Your task to perform on an android device: uninstall "Duolingo: language lessons" Image 0: 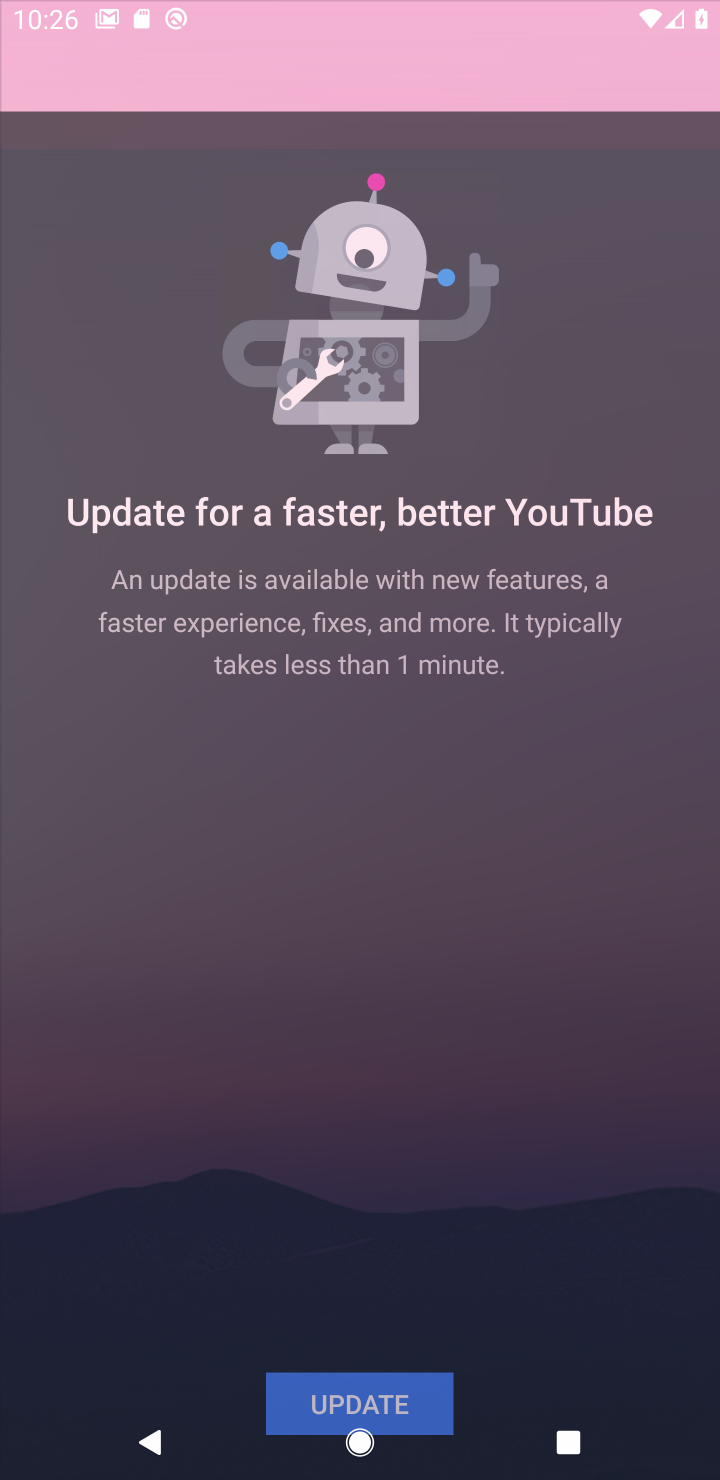
Step 0: press back button
Your task to perform on an android device: uninstall "Duolingo: language lessons" Image 1: 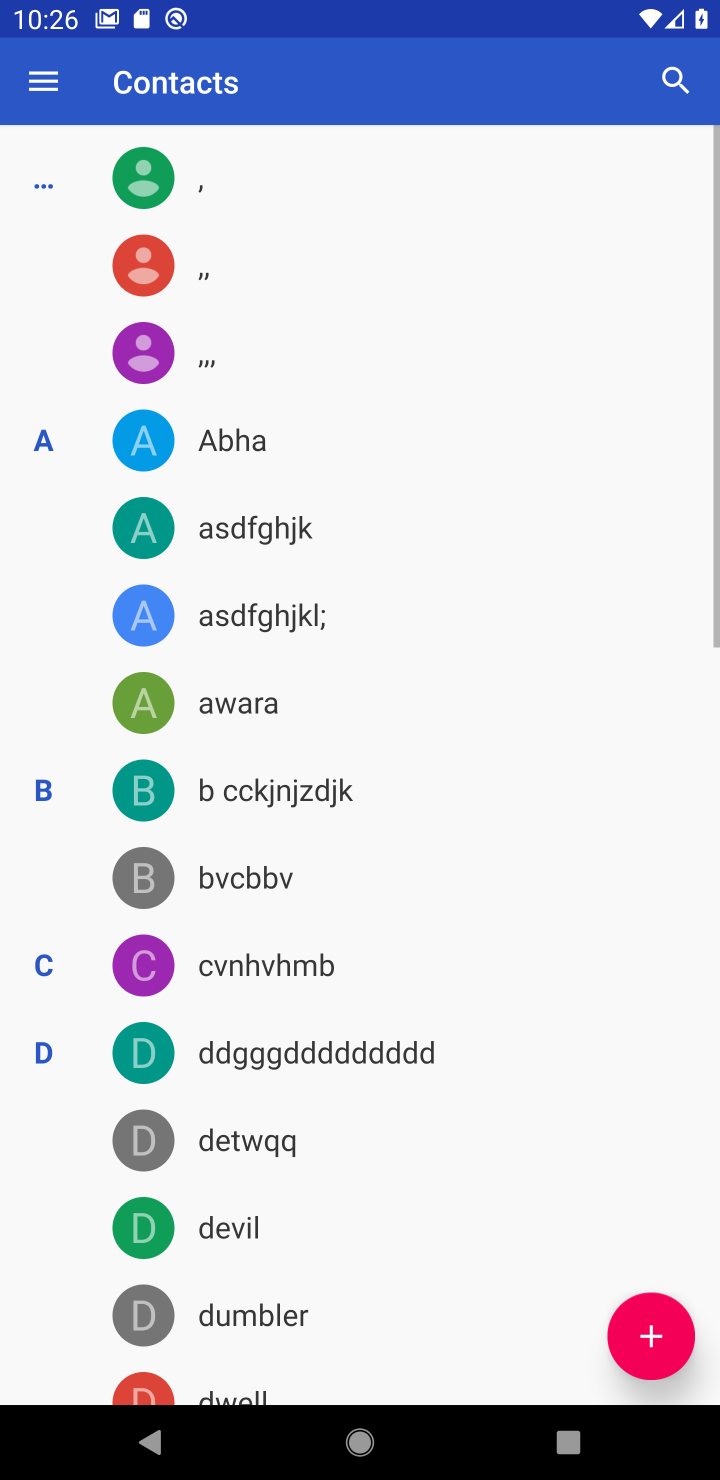
Step 1: press home button
Your task to perform on an android device: uninstall "Duolingo: language lessons" Image 2: 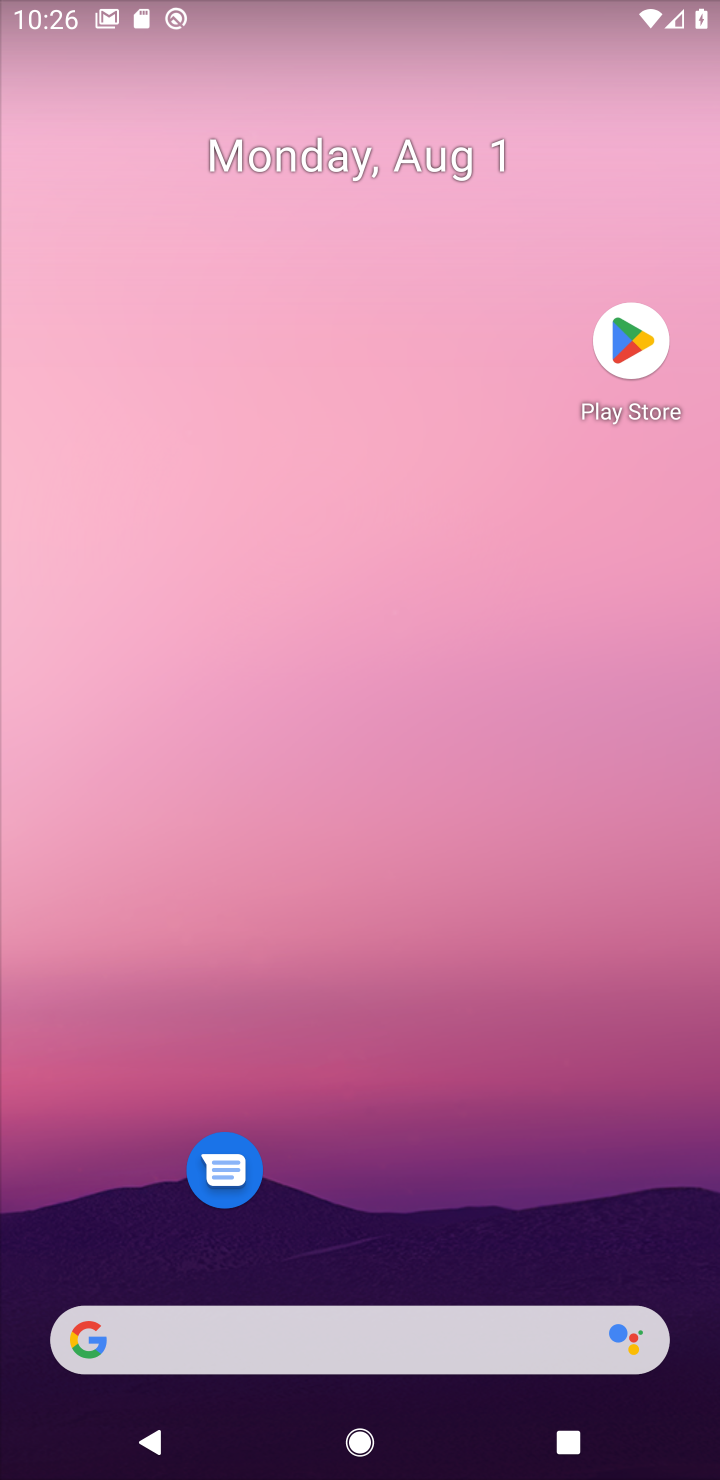
Step 2: drag from (441, 1378) to (407, 19)
Your task to perform on an android device: uninstall "Duolingo: language lessons" Image 3: 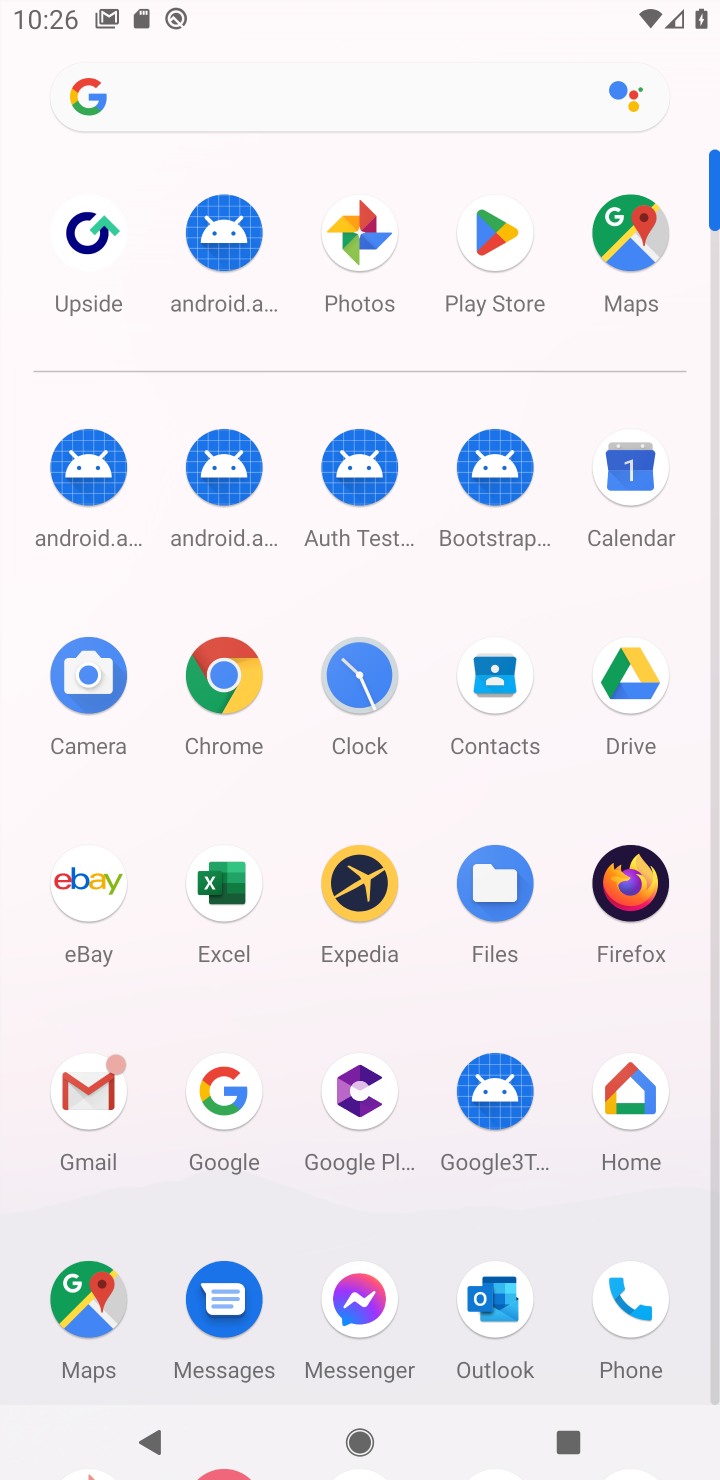
Step 3: drag from (450, 857) to (401, 153)
Your task to perform on an android device: uninstall "Duolingo: language lessons" Image 4: 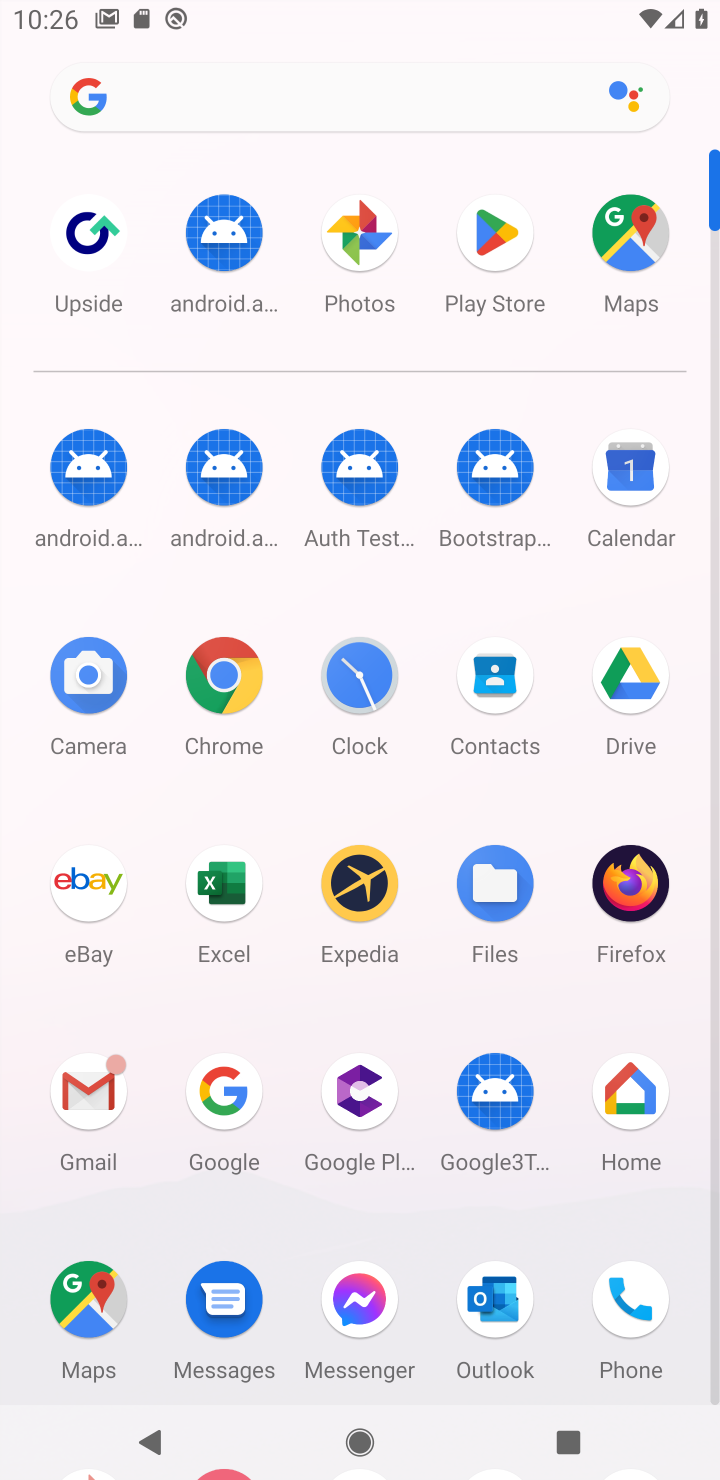
Step 4: click (610, 259)
Your task to perform on an android device: uninstall "Duolingo: language lessons" Image 5: 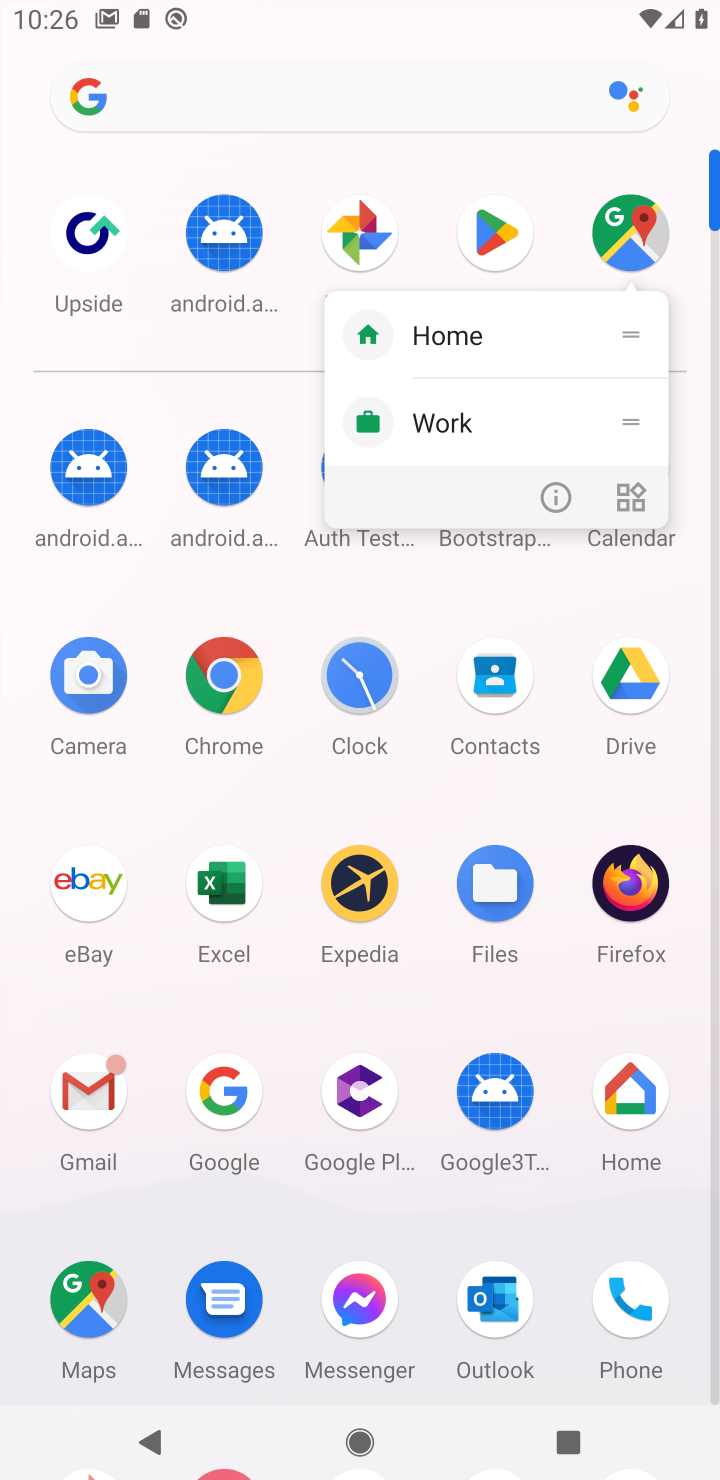
Step 5: click (497, 263)
Your task to perform on an android device: uninstall "Duolingo: language lessons" Image 6: 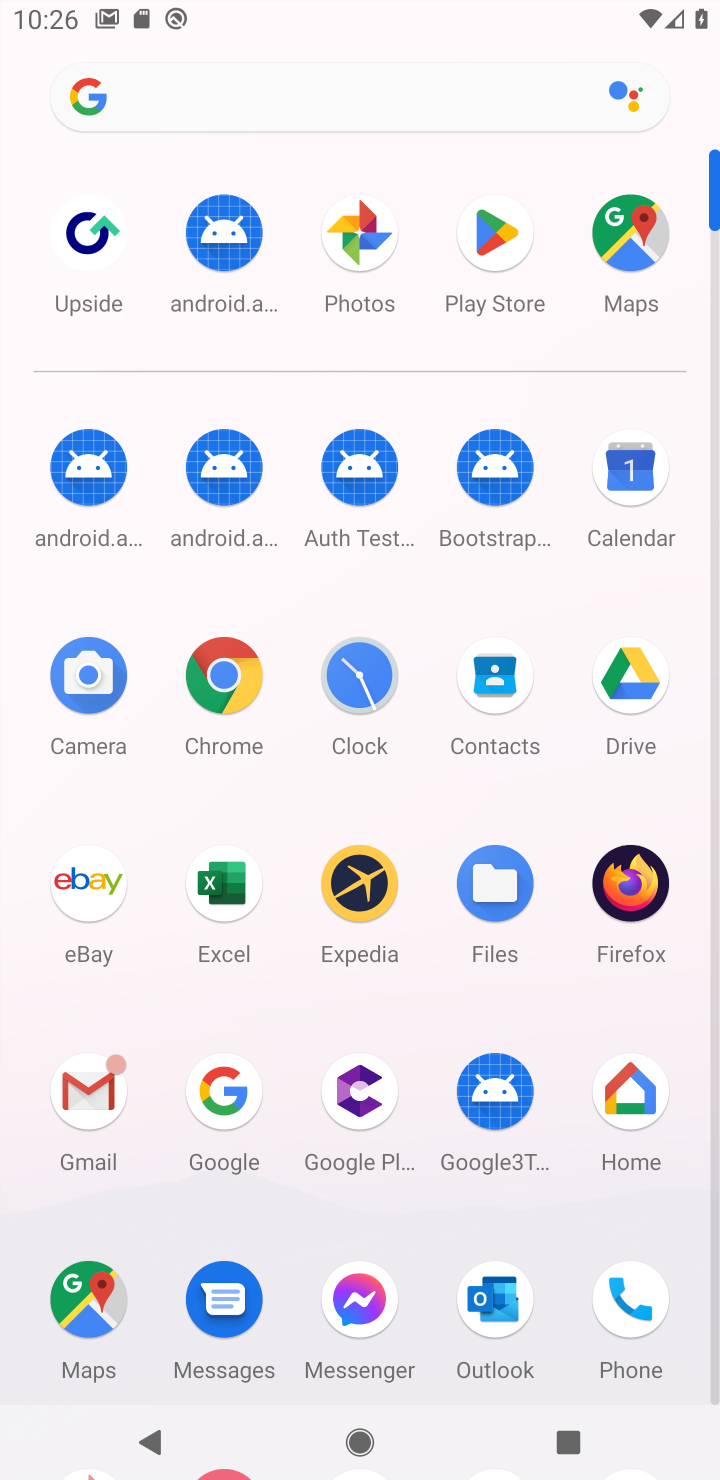
Step 6: click (496, 262)
Your task to perform on an android device: uninstall "Duolingo: language lessons" Image 7: 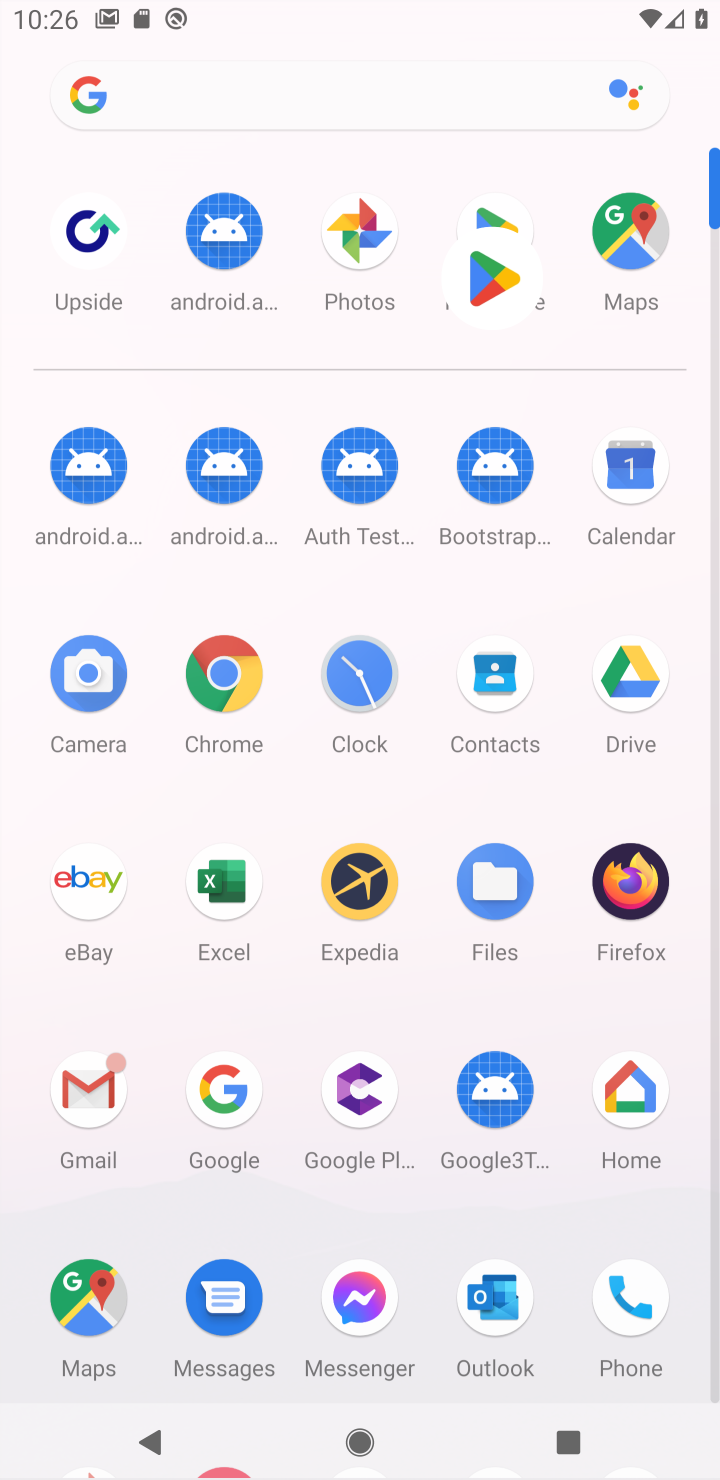
Step 7: click (494, 240)
Your task to perform on an android device: uninstall "Duolingo: language lessons" Image 8: 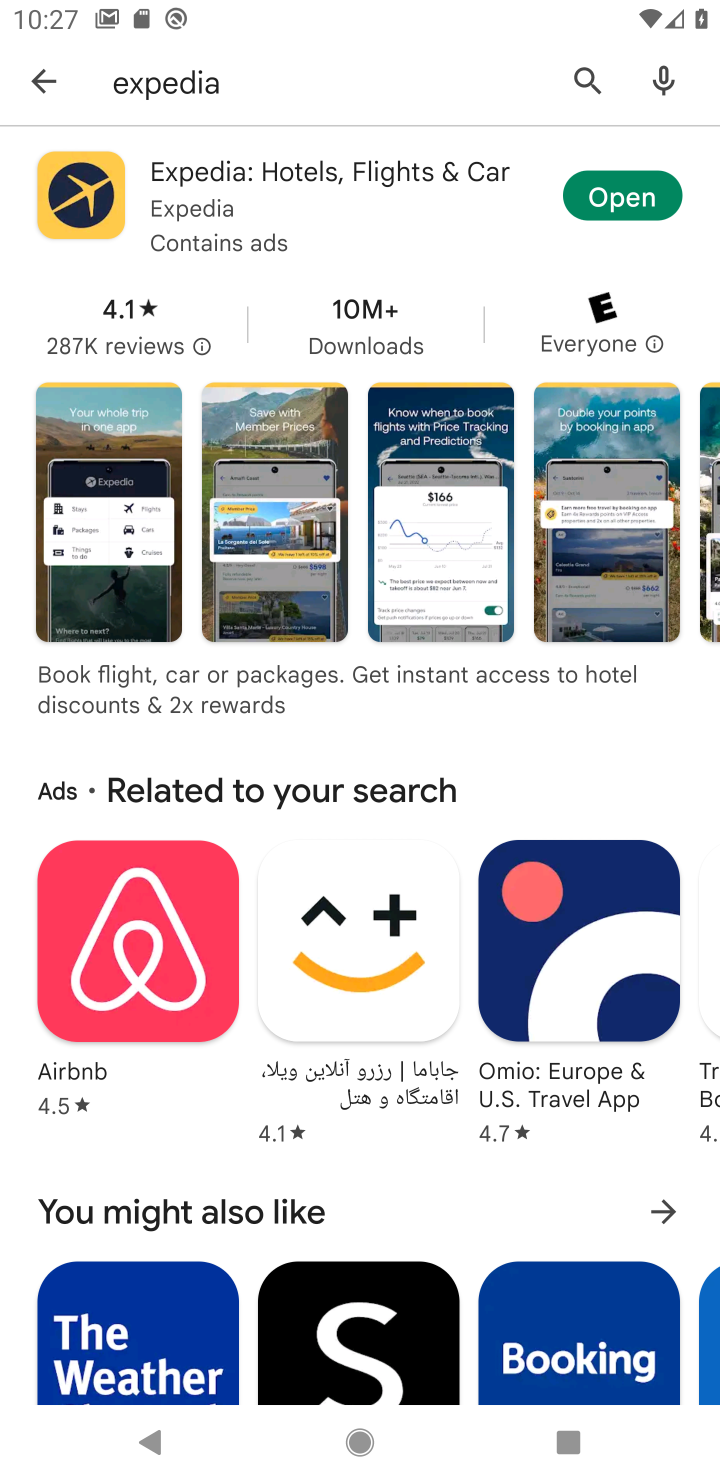
Step 8: click (45, 60)
Your task to perform on an android device: uninstall "Duolingo: language lessons" Image 9: 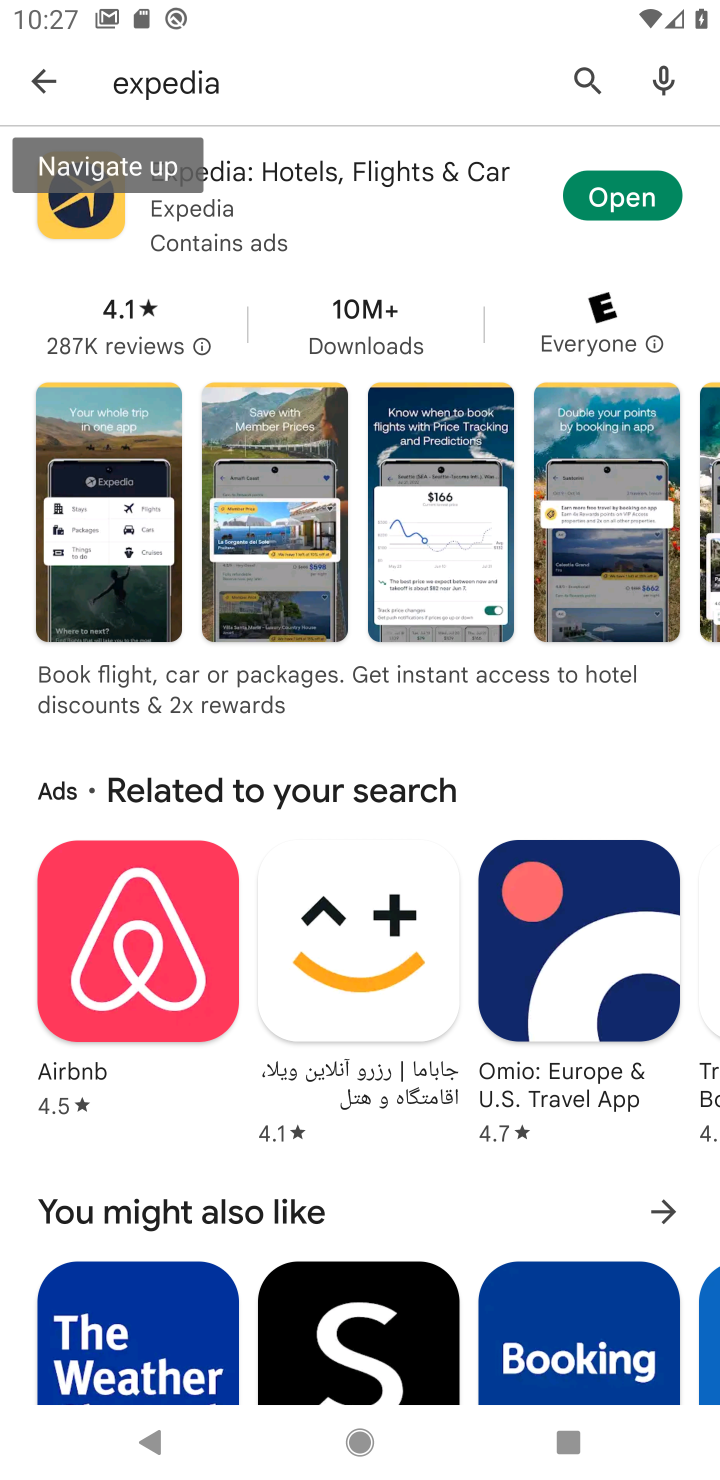
Step 9: click (169, 83)
Your task to perform on an android device: uninstall "Duolingo: language lessons" Image 10: 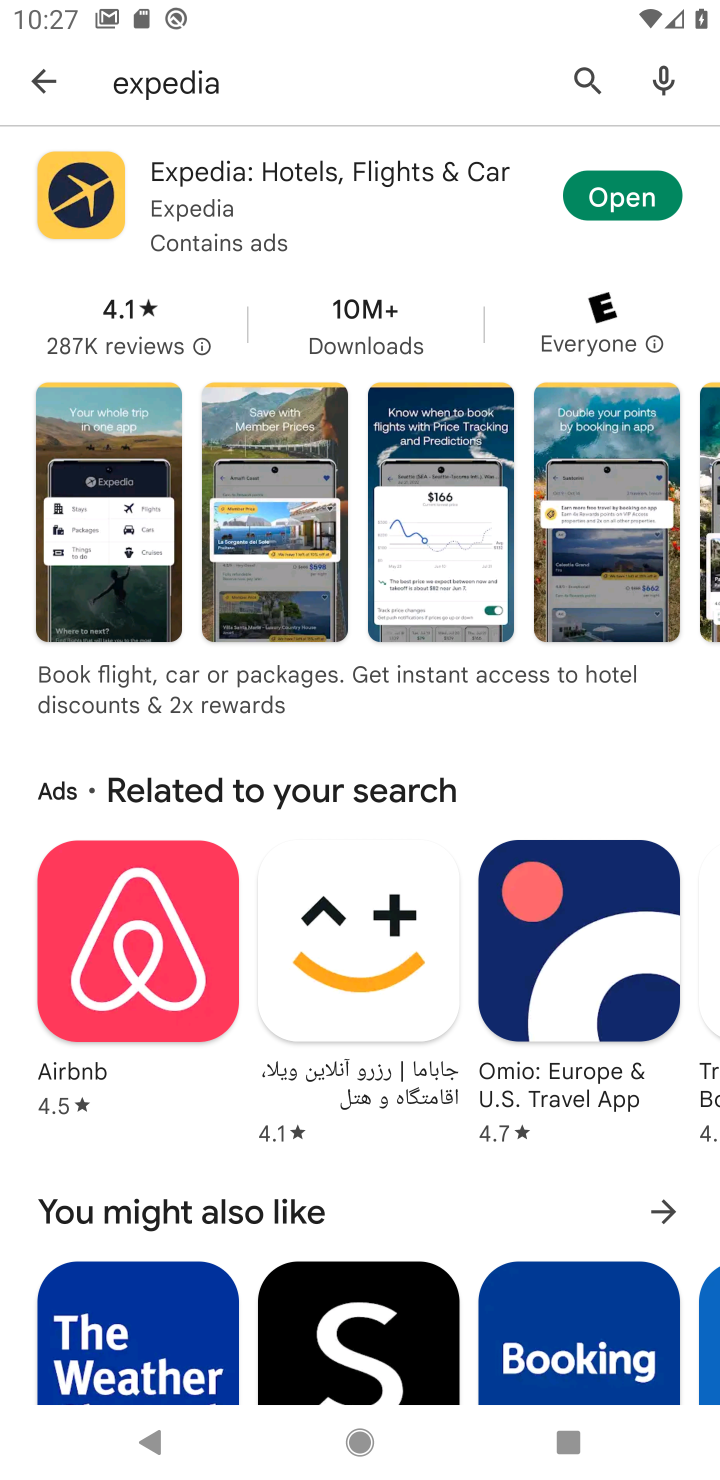
Step 10: click (171, 82)
Your task to perform on an android device: uninstall "Duolingo: language lessons" Image 11: 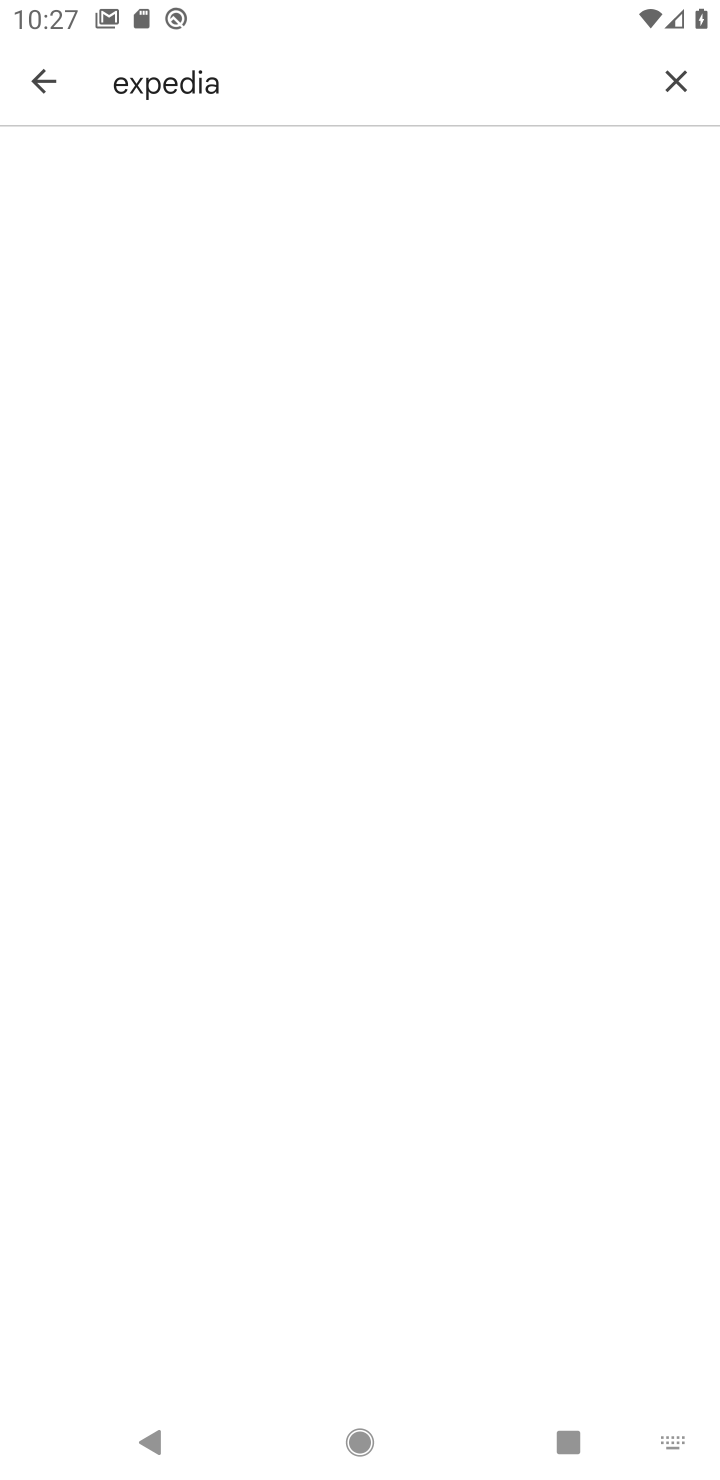
Step 11: click (171, 63)
Your task to perform on an android device: uninstall "Duolingo: language lessons" Image 12: 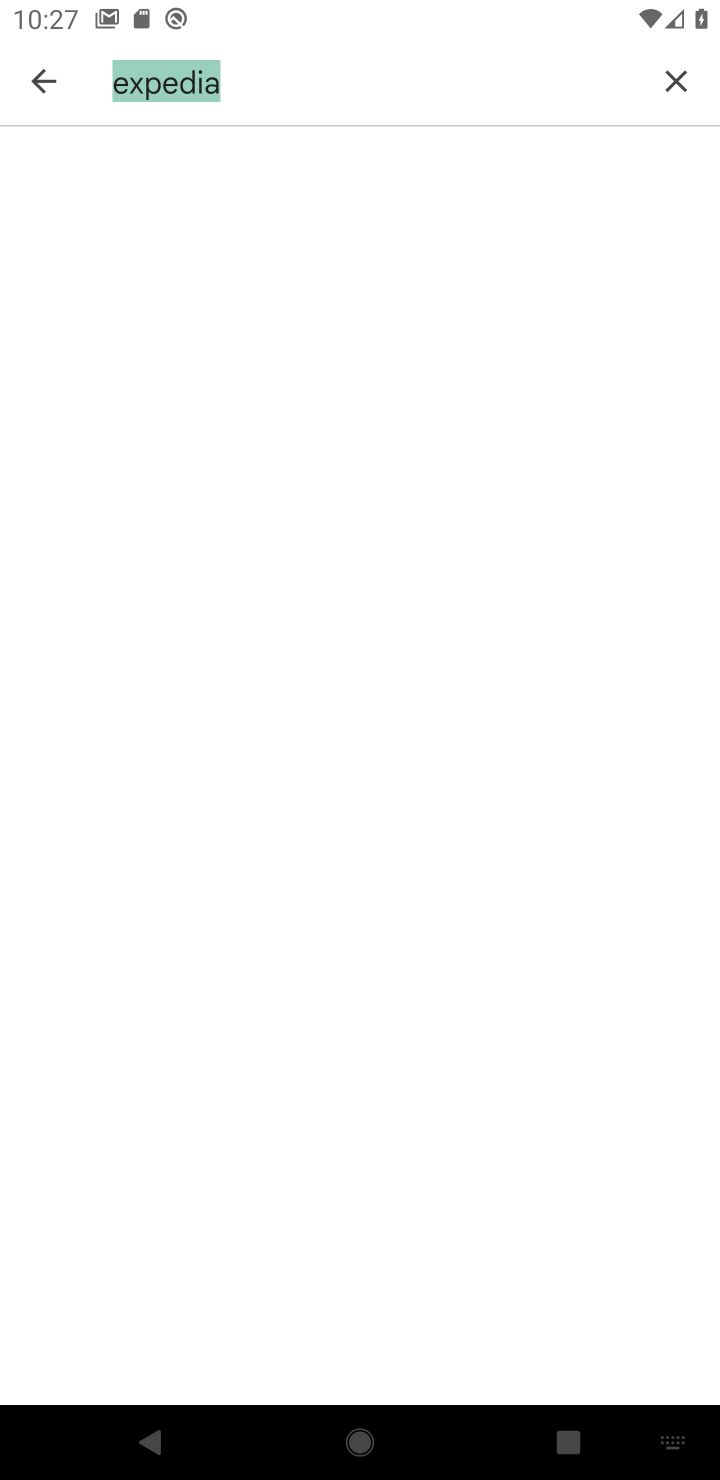
Step 12: click (244, 92)
Your task to perform on an android device: uninstall "Duolingo: language lessons" Image 13: 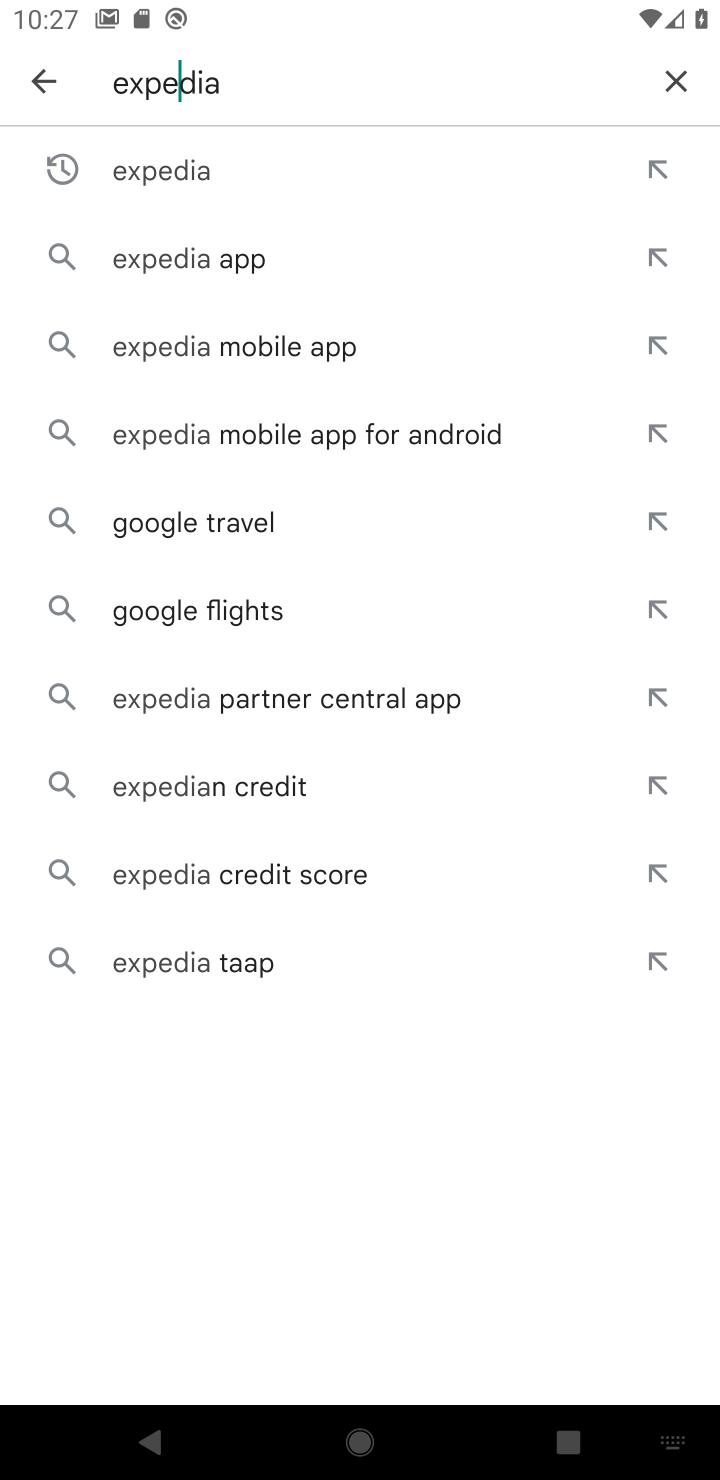
Step 13: click (681, 78)
Your task to perform on an android device: uninstall "Duolingo: language lessons" Image 14: 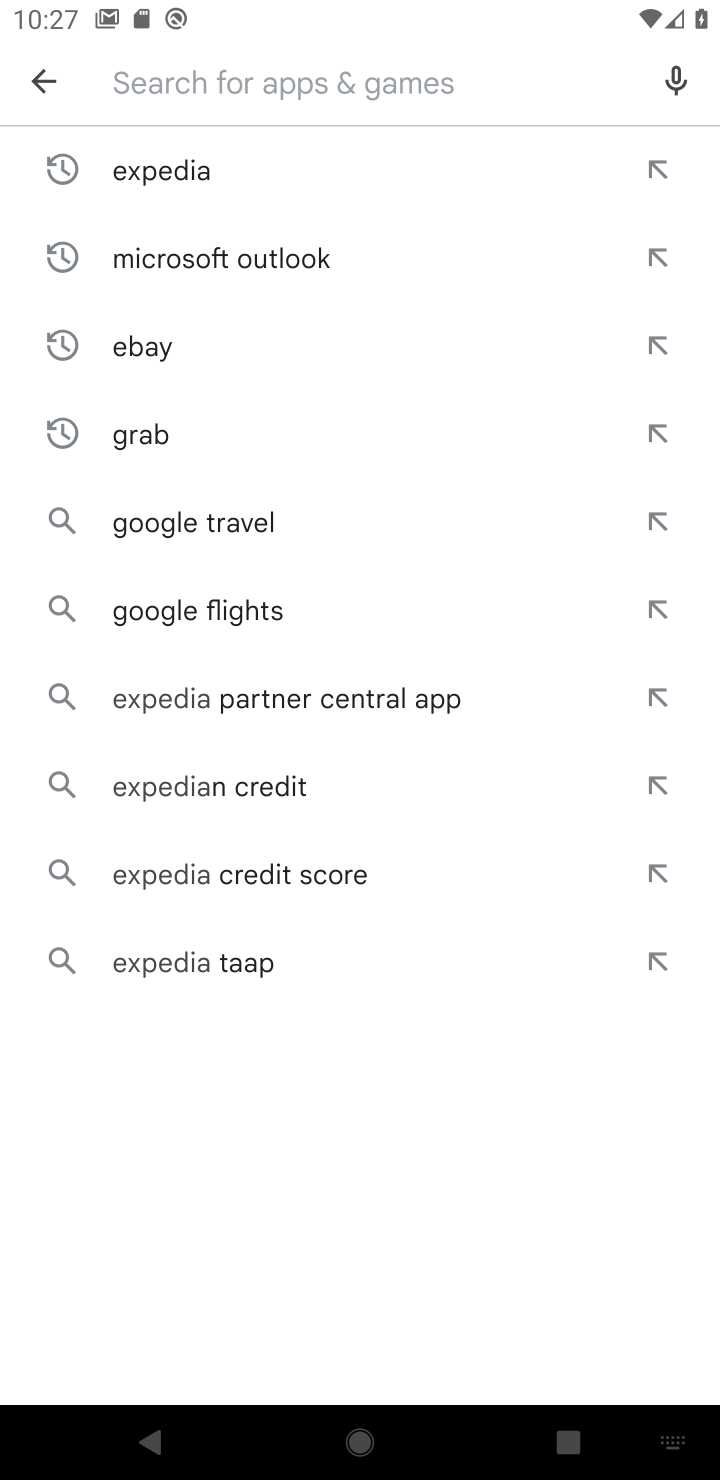
Step 14: click (677, 91)
Your task to perform on an android device: uninstall "Duolingo: language lessons" Image 15: 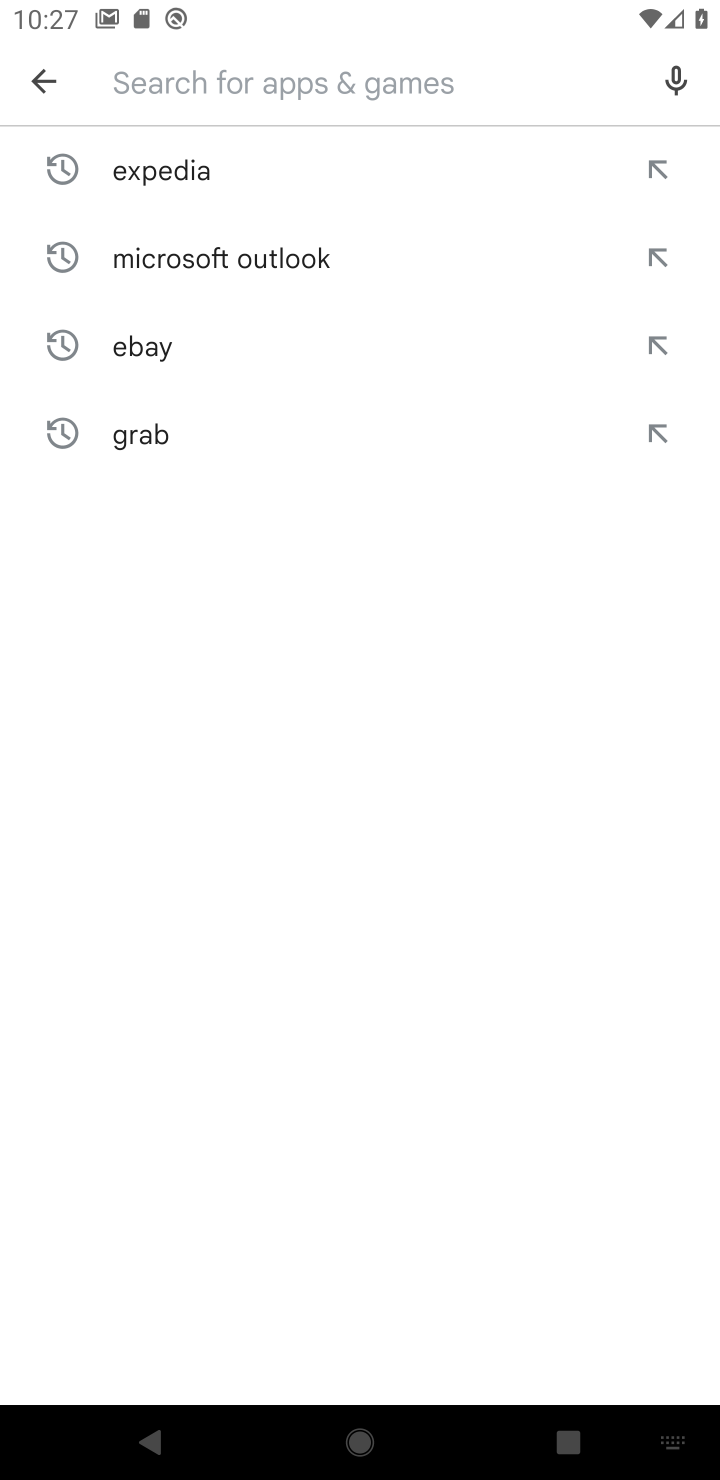
Step 15: click (149, 96)
Your task to perform on an android device: uninstall "Duolingo: language lessons" Image 16: 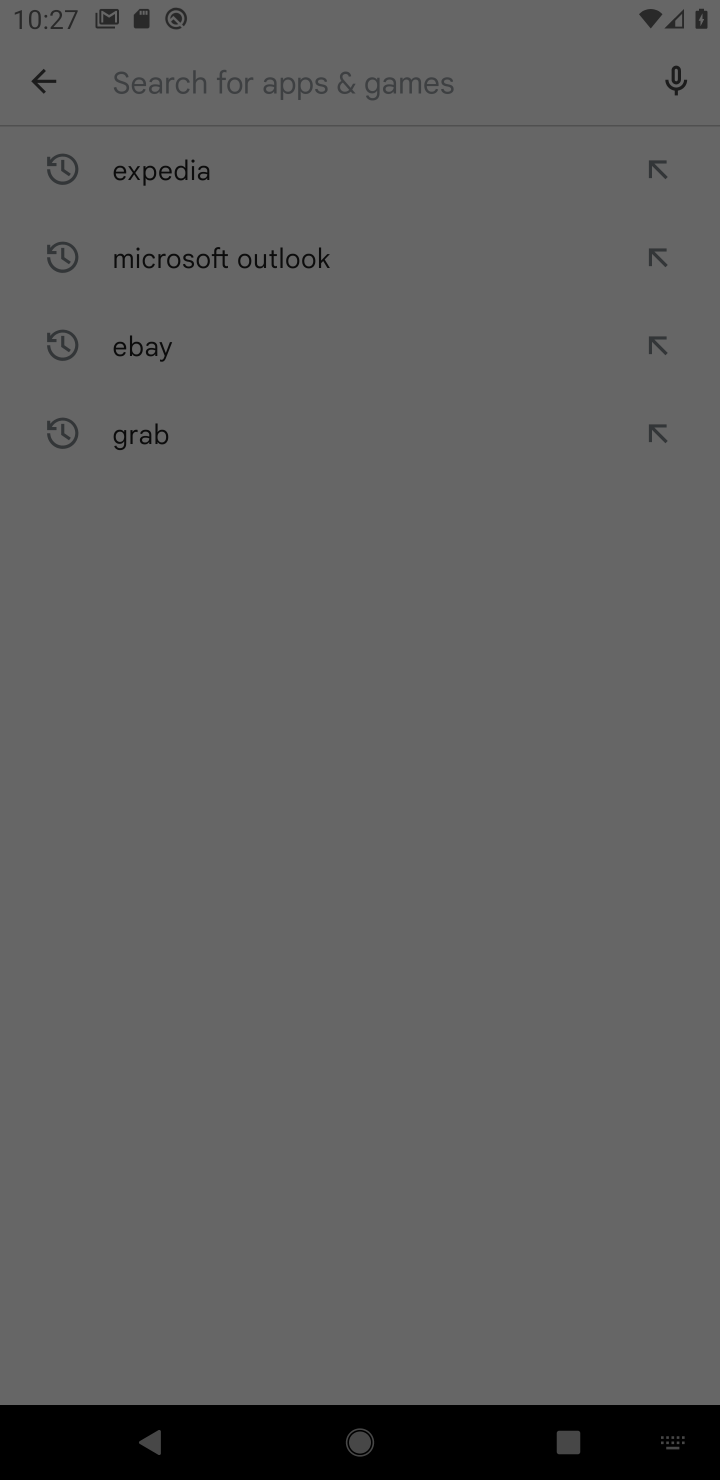
Step 16: click (132, 83)
Your task to perform on an android device: uninstall "Duolingo: language lessons" Image 17: 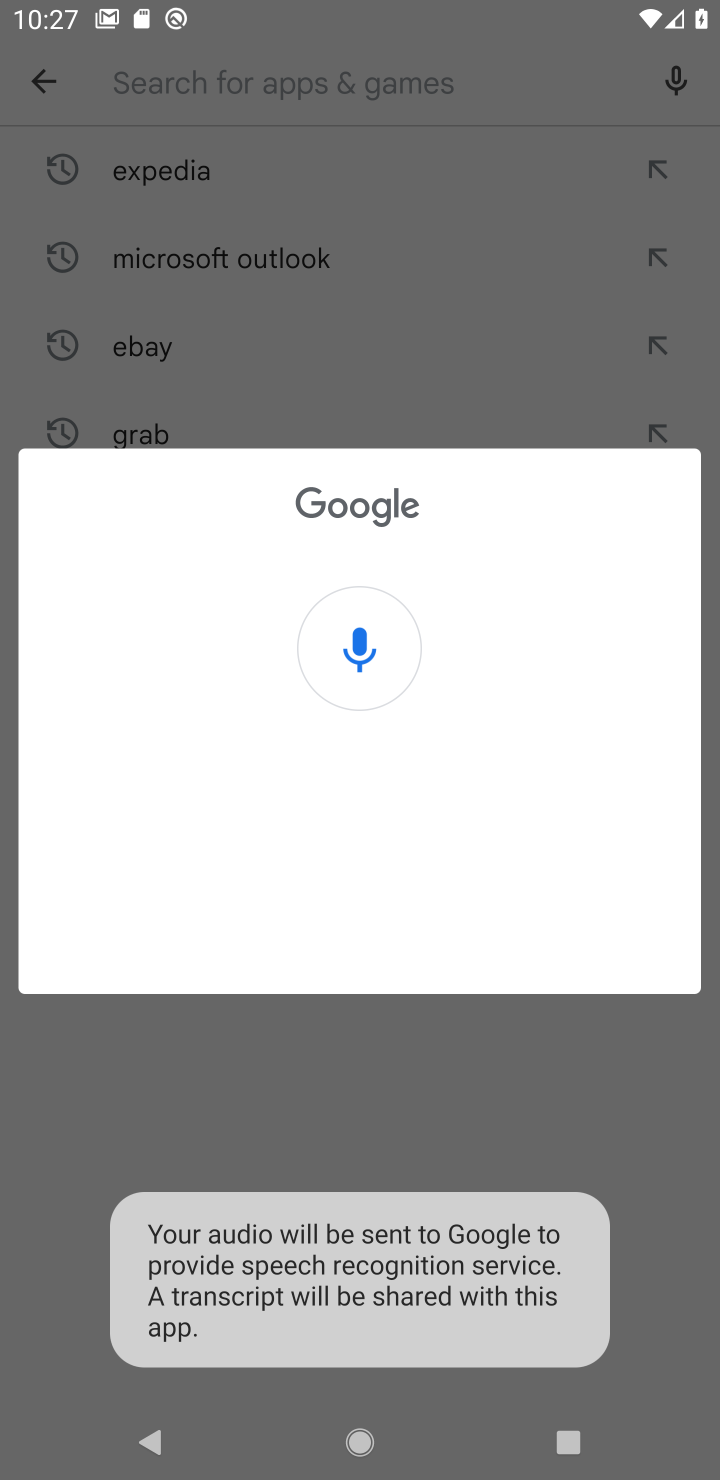
Step 17: click (54, 85)
Your task to perform on an android device: uninstall "Duolingo: language lessons" Image 18: 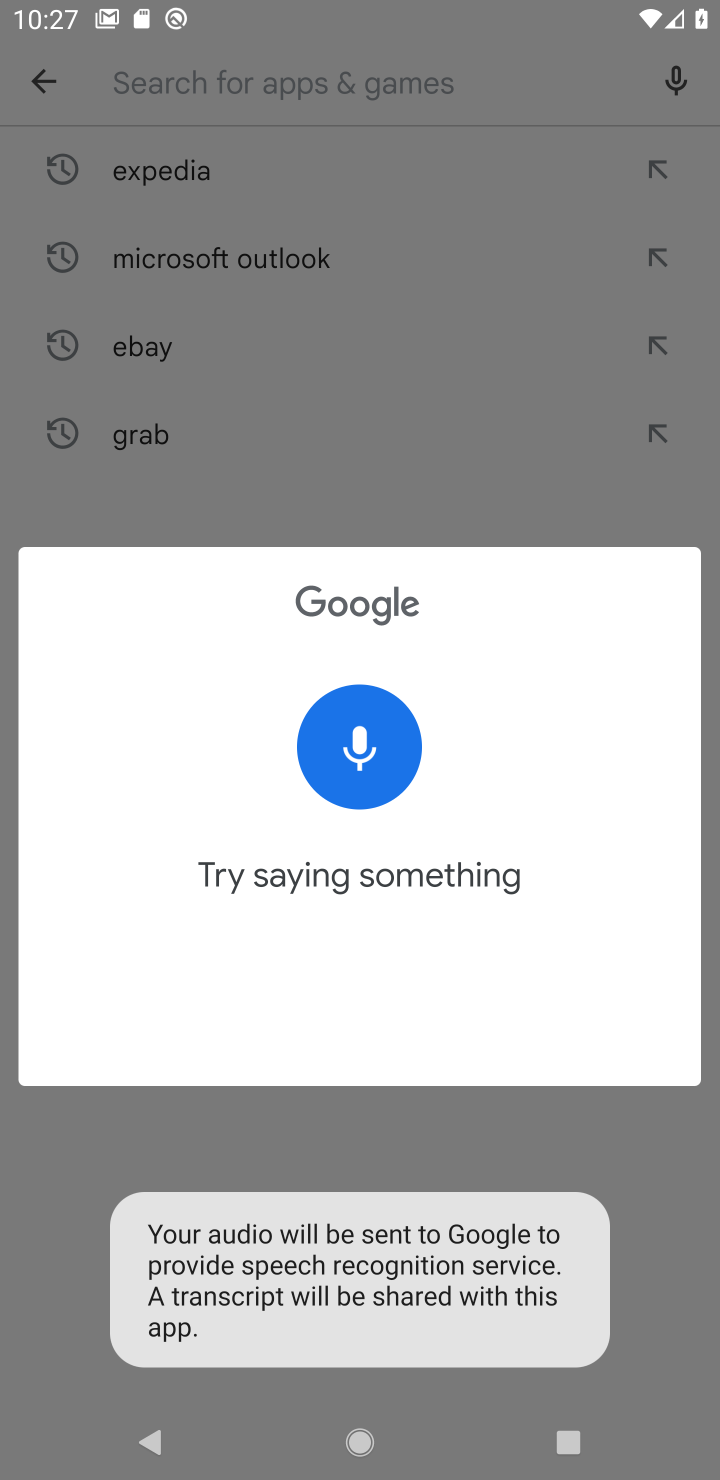
Step 18: click (66, 96)
Your task to perform on an android device: uninstall "Duolingo: language lessons" Image 19: 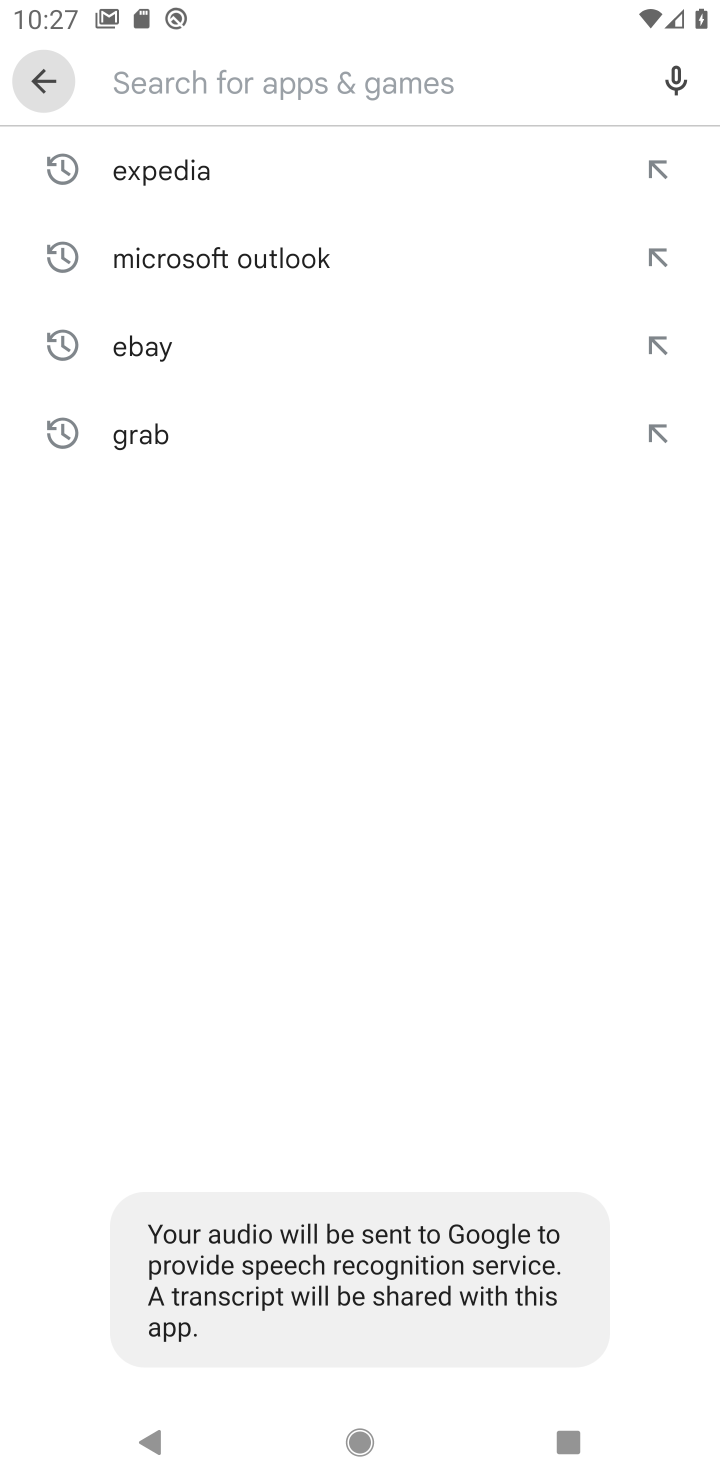
Step 19: click (70, 96)
Your task to perform on an android device: uninstall "Duolingo: language lessons" Image 20: 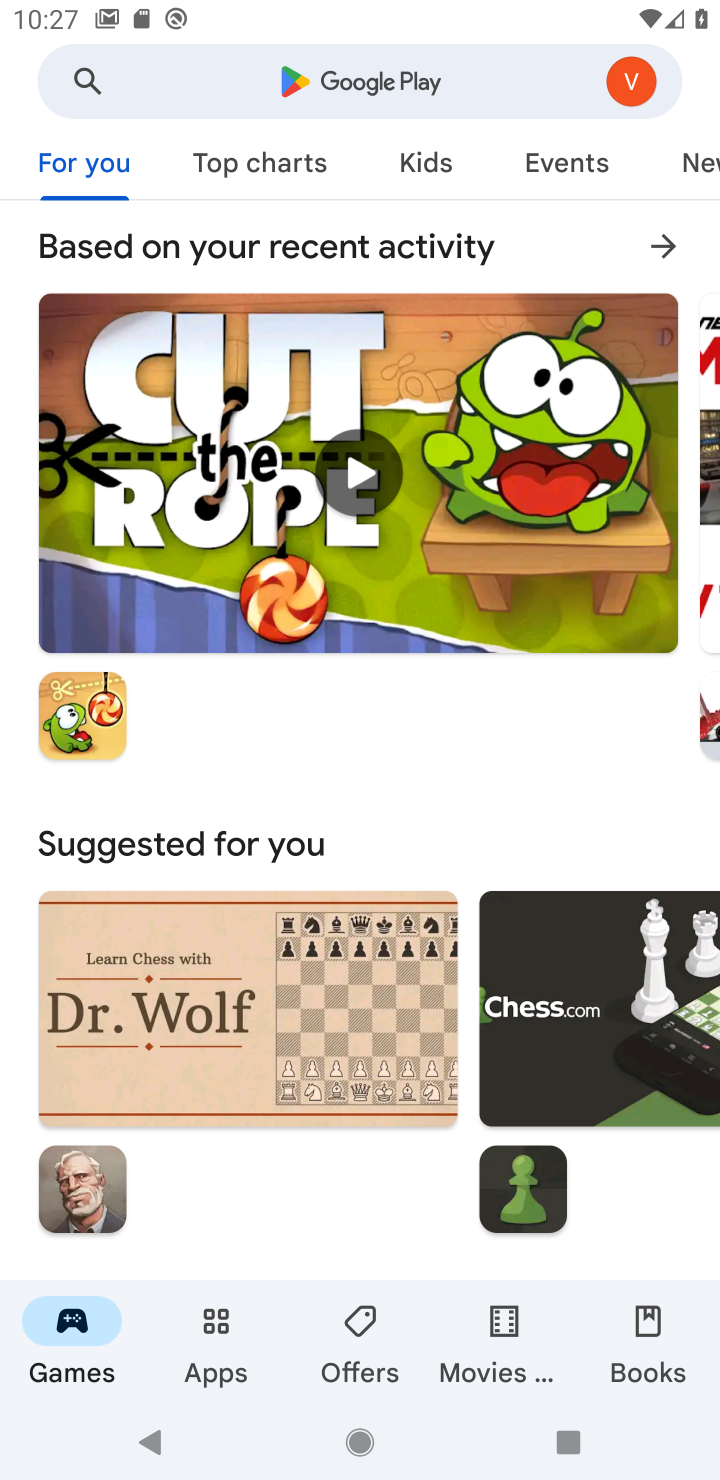
Step 20: click (38, 69)
Your task to perform on an android device: uninstall "Duolingo: language lessons" Image 21: 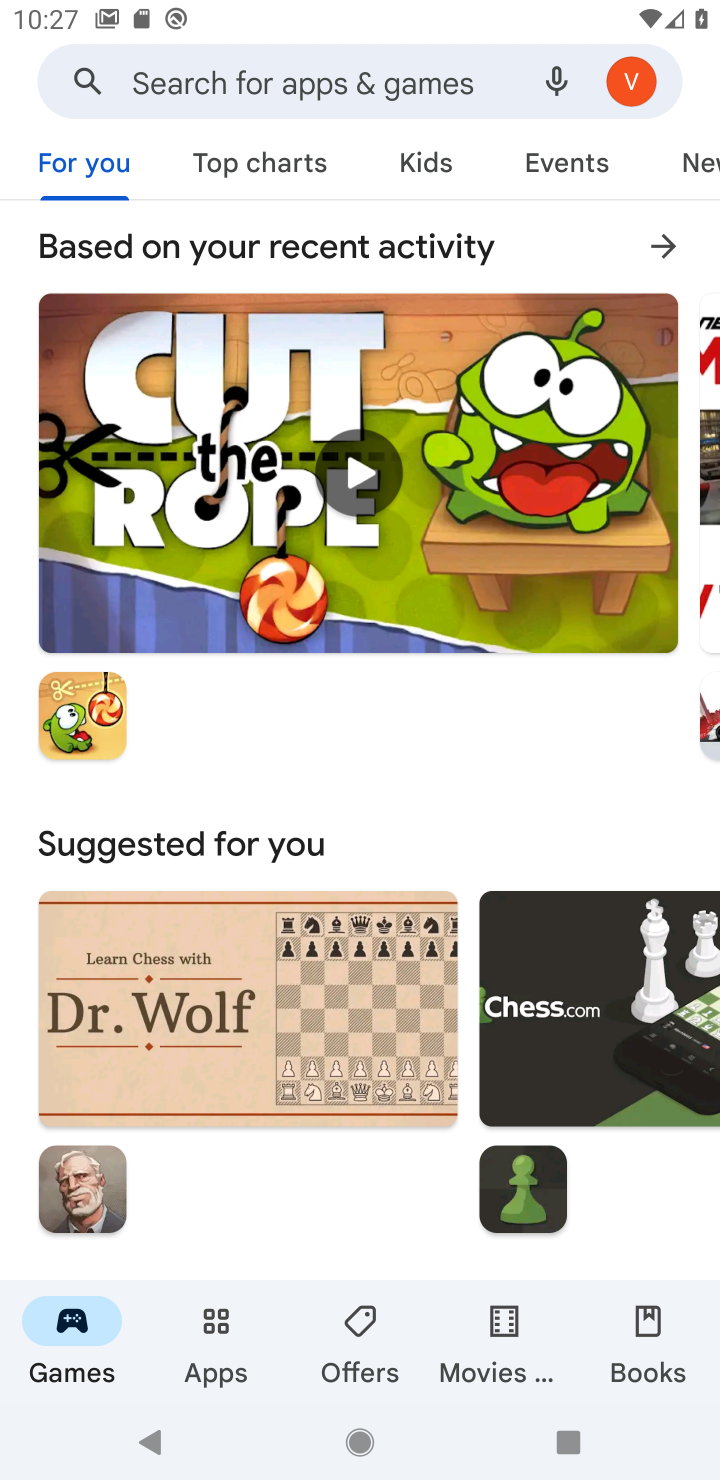
Step 21: click (303, 72)
Your task to perform on an android device: uninstall "Duolingo: language lessons" Image 22: 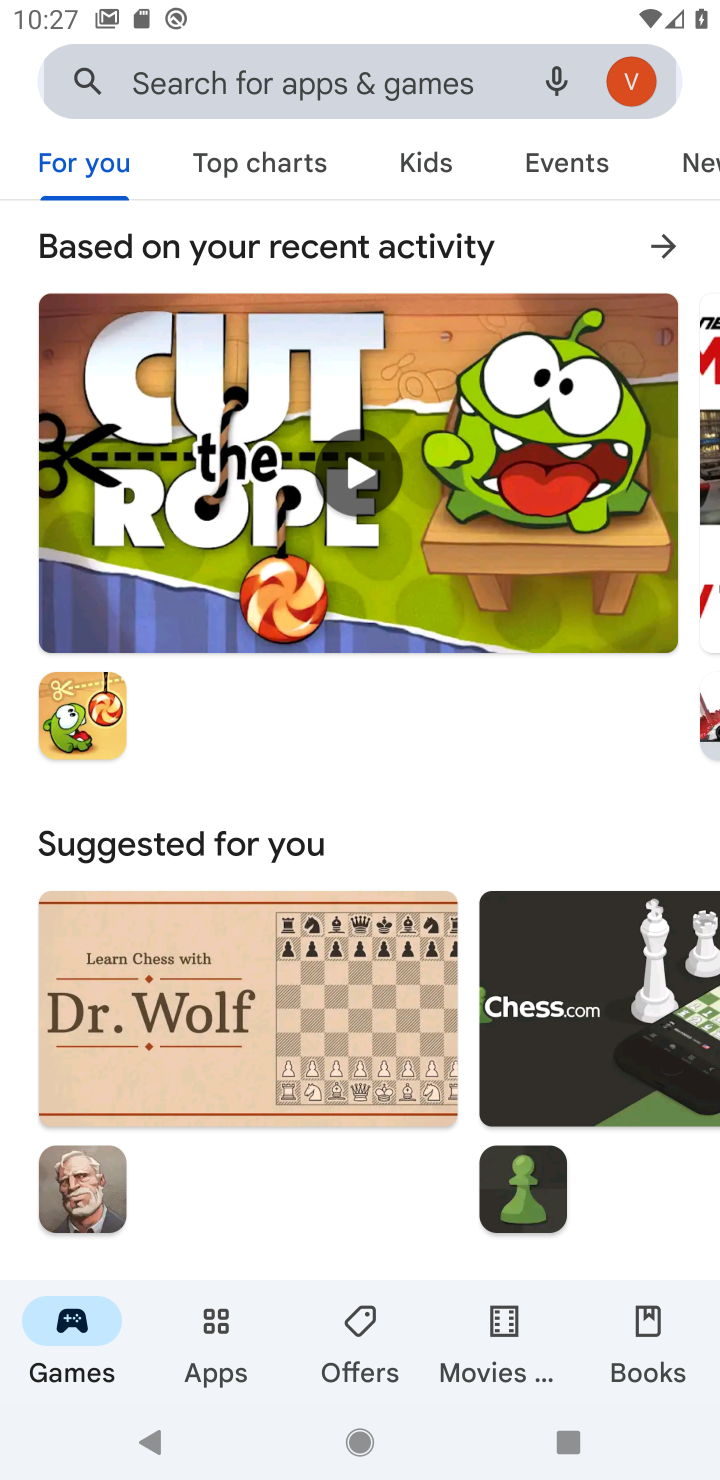
Step 22: click (199, 73)
Your task to perform on an android device: uninstall "Duolingo: language lessons" Image 23: 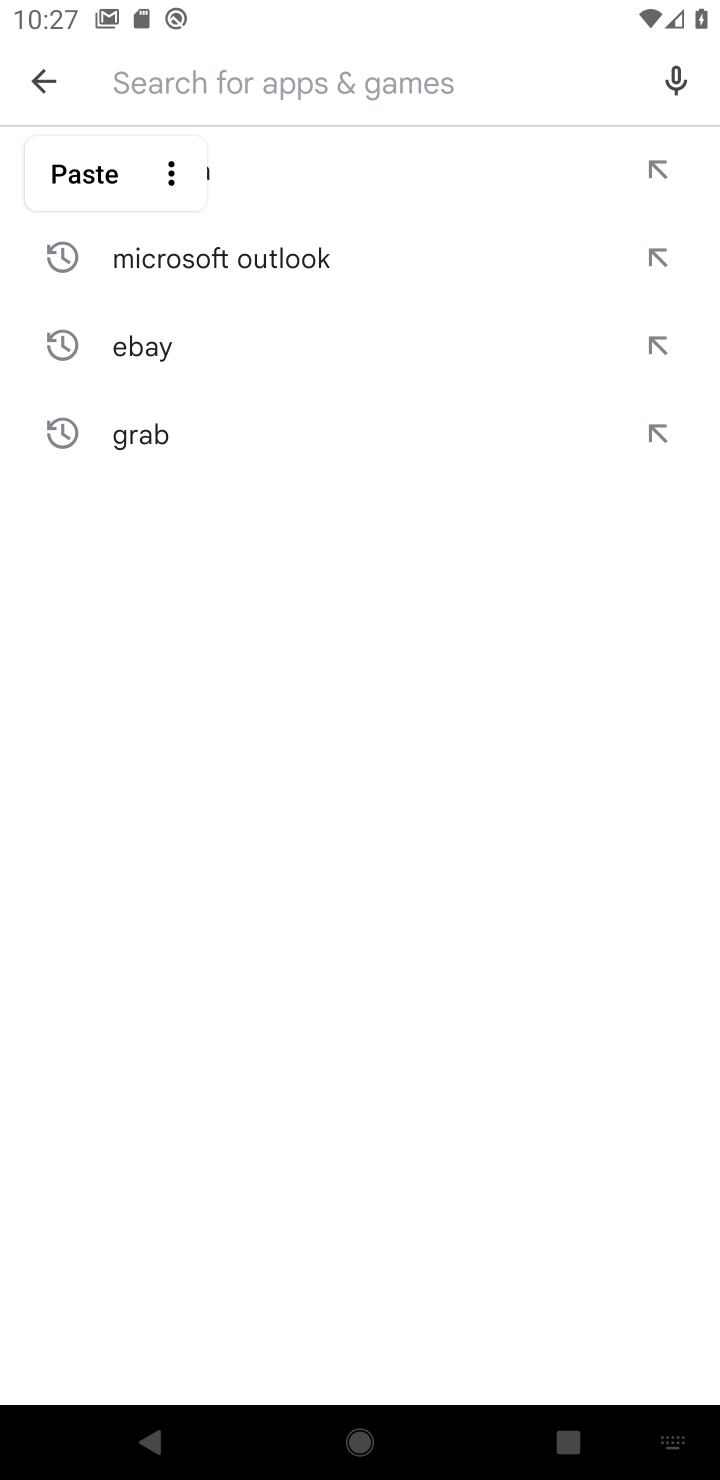
Step 23: type "duolingo"
Your task to perform on an android device: uninstall "Duolingo: language lessons" Image 24: 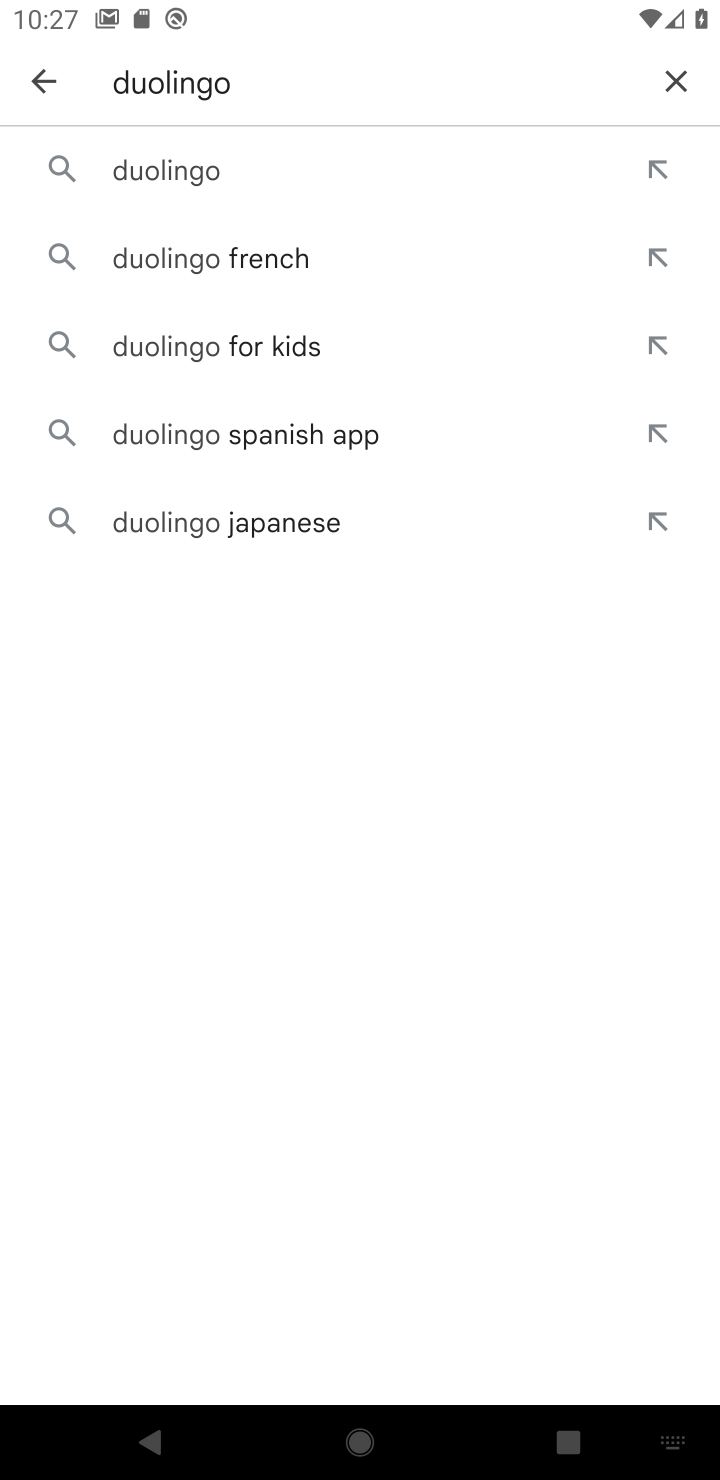
Step 24: click (148, 180)
Your task to perform on an android device: uninstall "Duolingo: language lessons" Image 25: 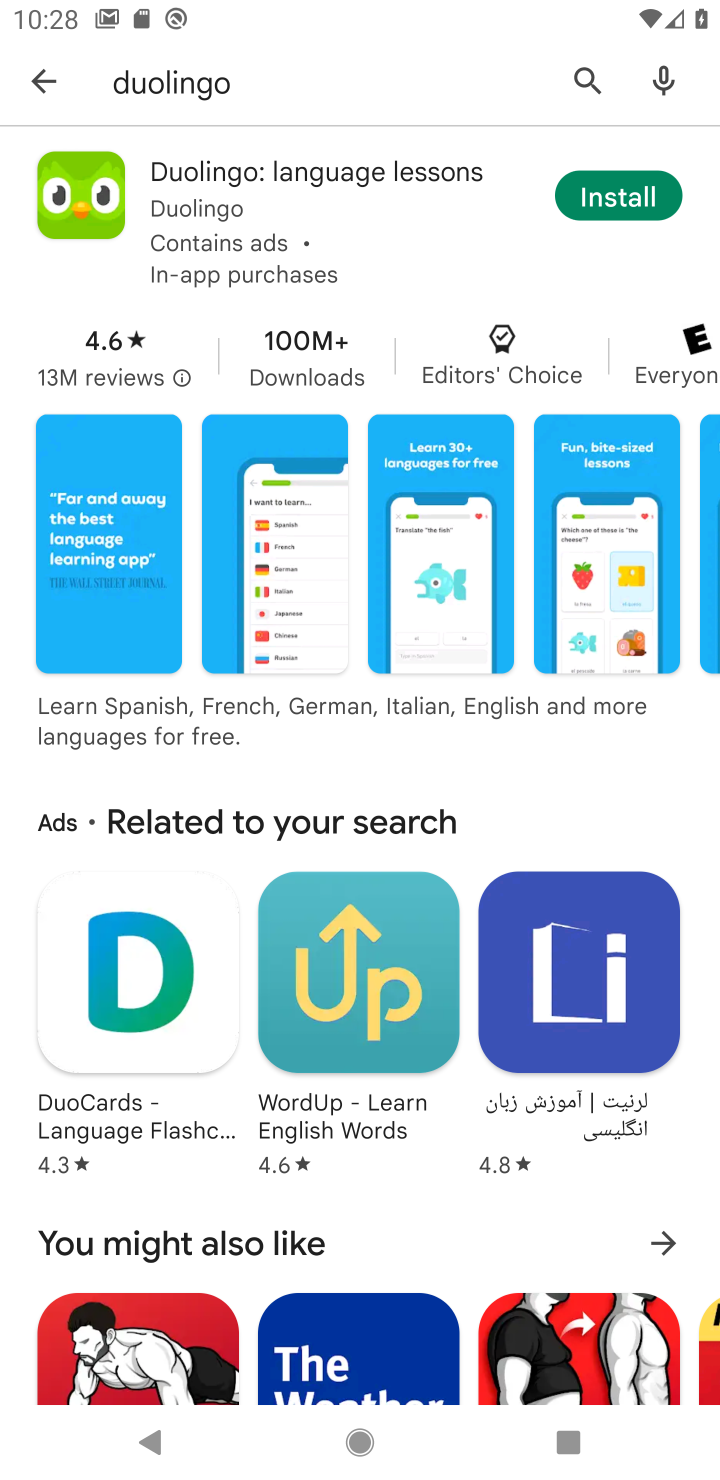
Step 25: task complete